Your task to perform on an android device: open app "Facebook" Image 0: 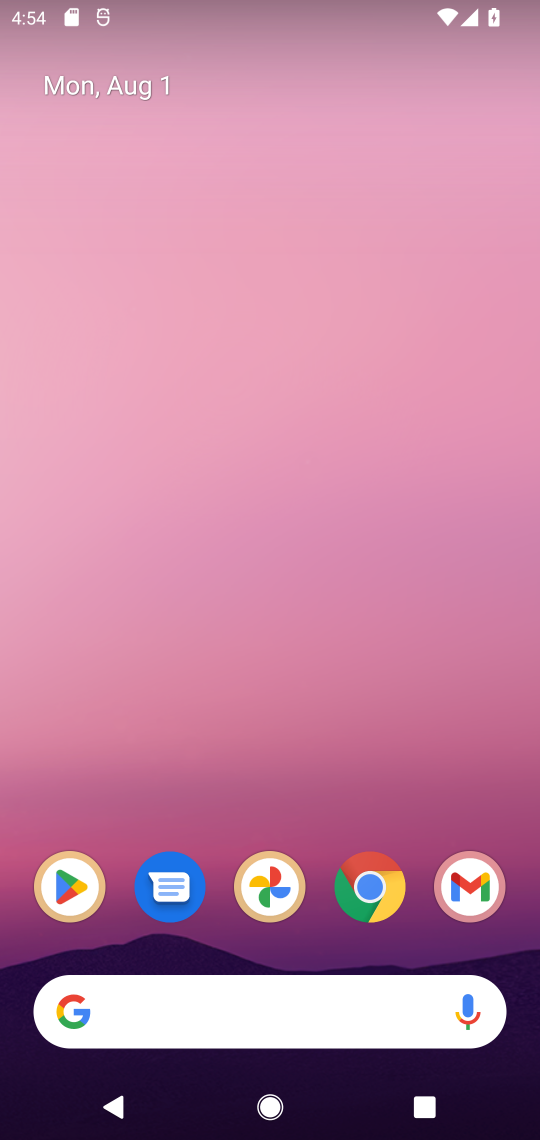
Step 0: click (79, 907)
Your task to perform on an android device: open app "Facebook" Image 1: 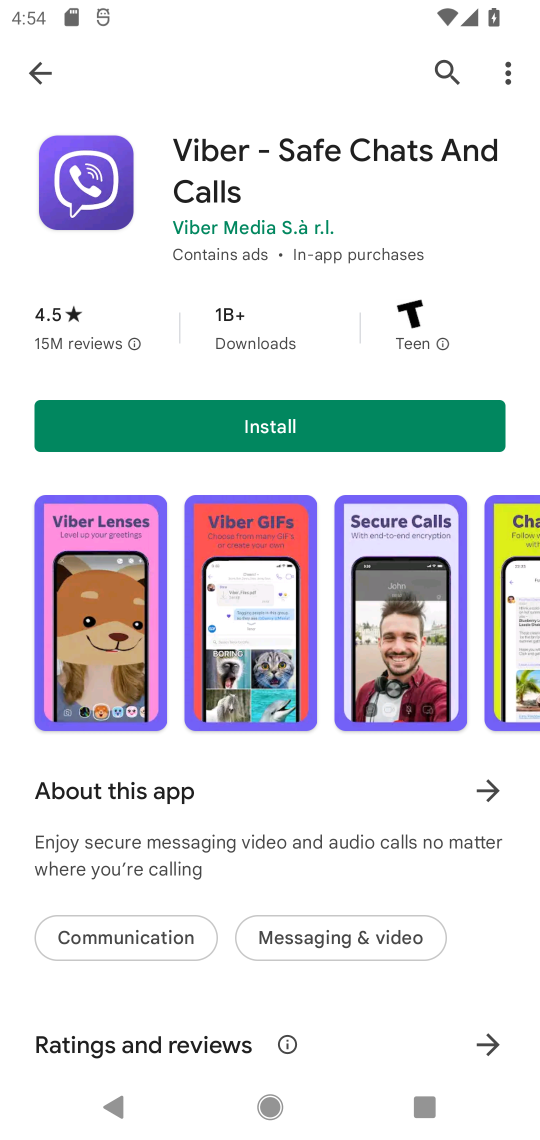
Step 1: click (84, 63)
Your task to perform on an android device: open app "Facebook" Image 2: 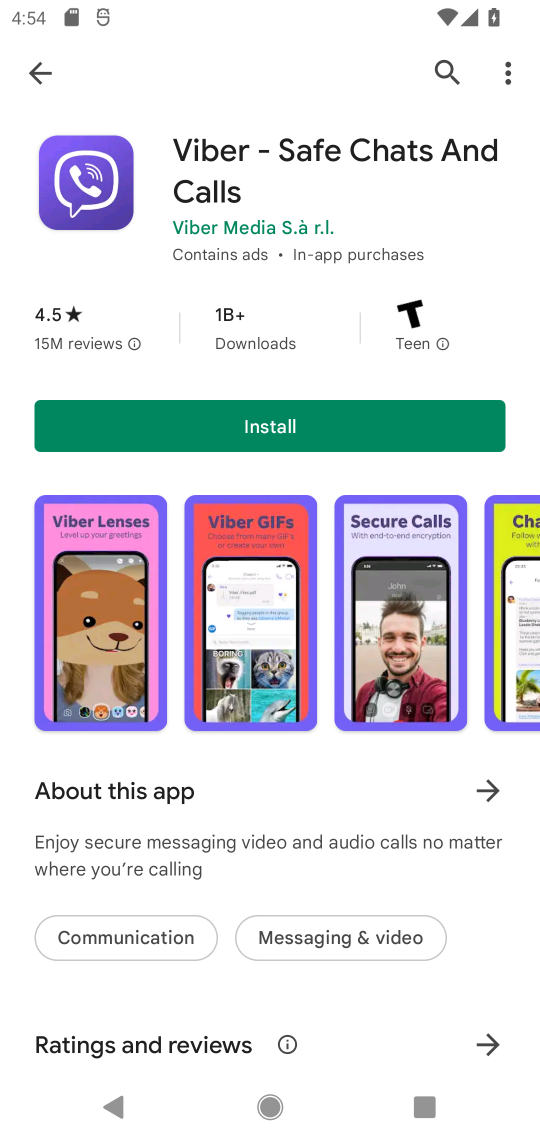
Step 2: click (53, 67)
Your task to perform on an android device: open app "Facebook" Image 3: 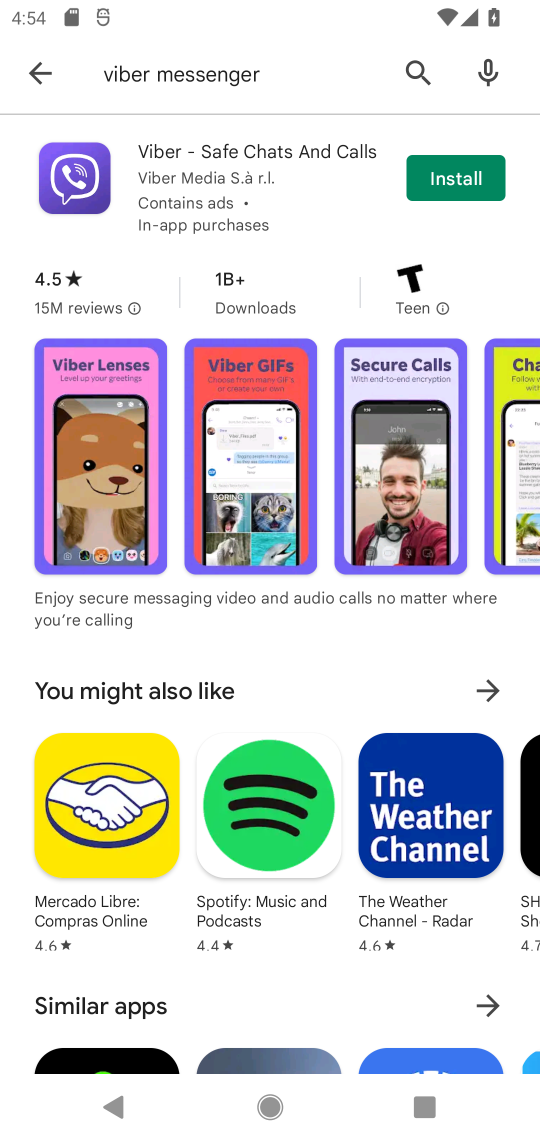
Step 3: click (53, 67)
Your task to perform on an android device: open app "Facebook" Image 4: 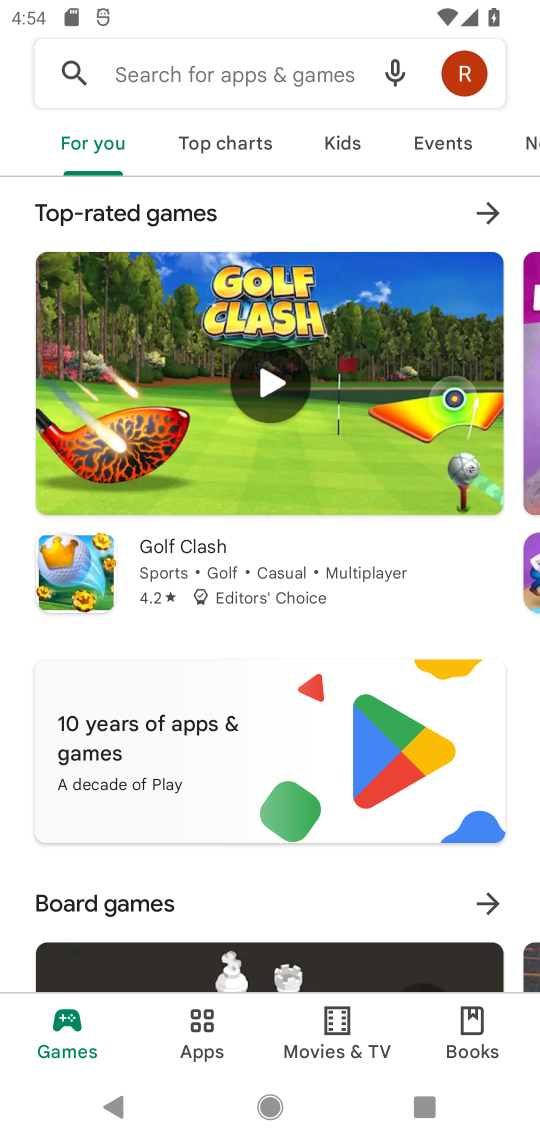
Step 4: click (136, 81)
Your task to perform on an android device: open app "Facebook" Image 5: 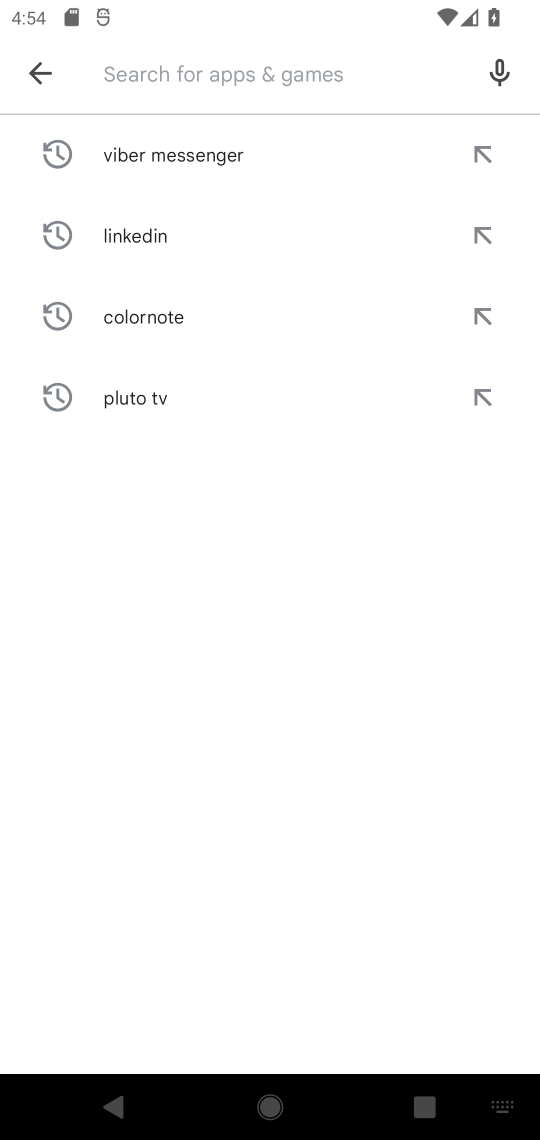
Step 5: type "Facebook"
Your task to perform on an android device: open app "Facebook" Image 6: 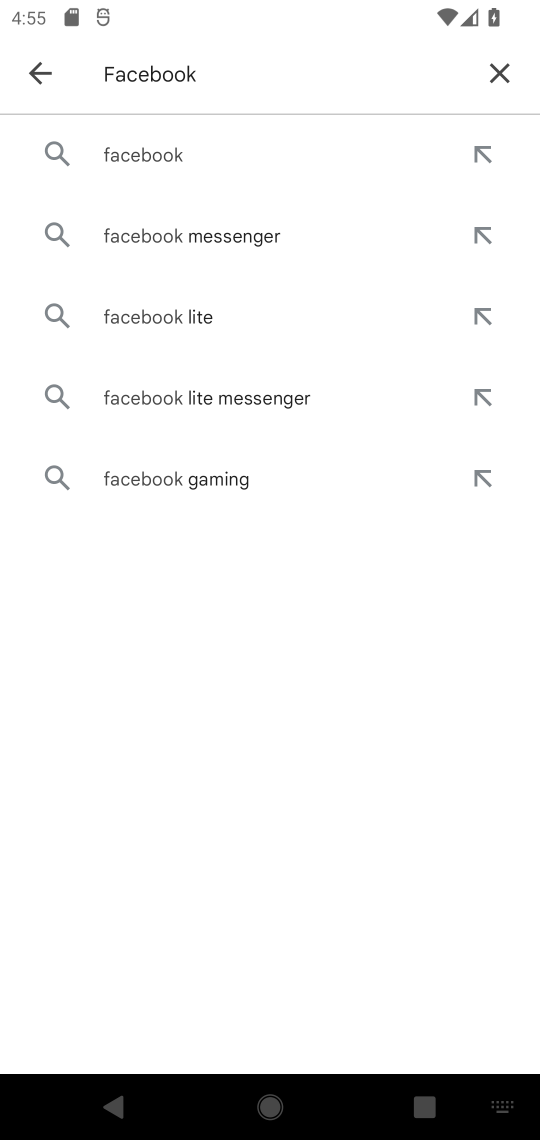
Step 6: click (165, 141)
Your task to perform on an android device: open app "Facebook" Image 7: 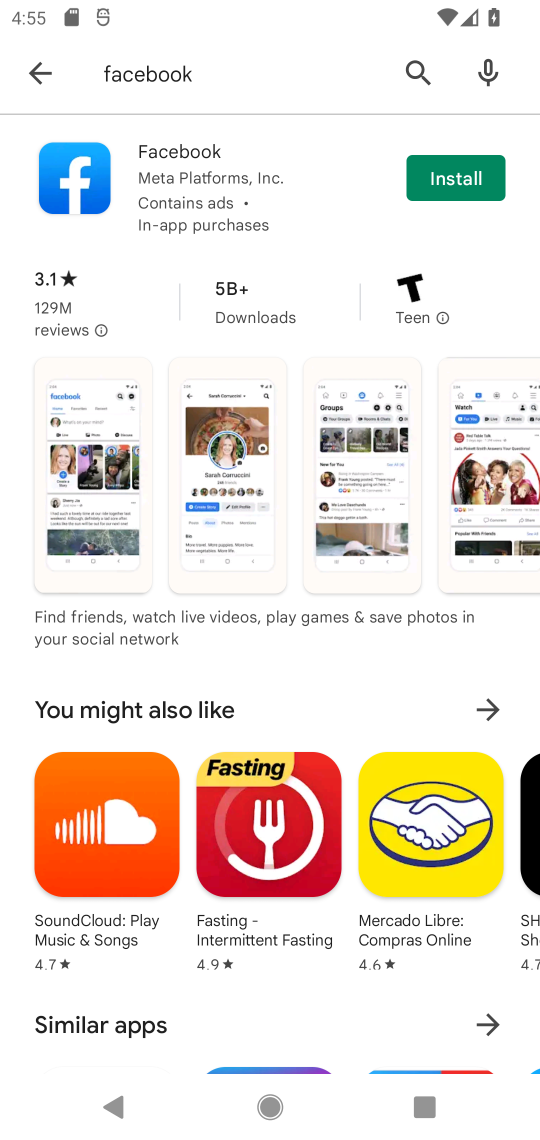
Step 7: click (451, 180)
Your task to perform on an android device: open app "Facebook" Image 8: 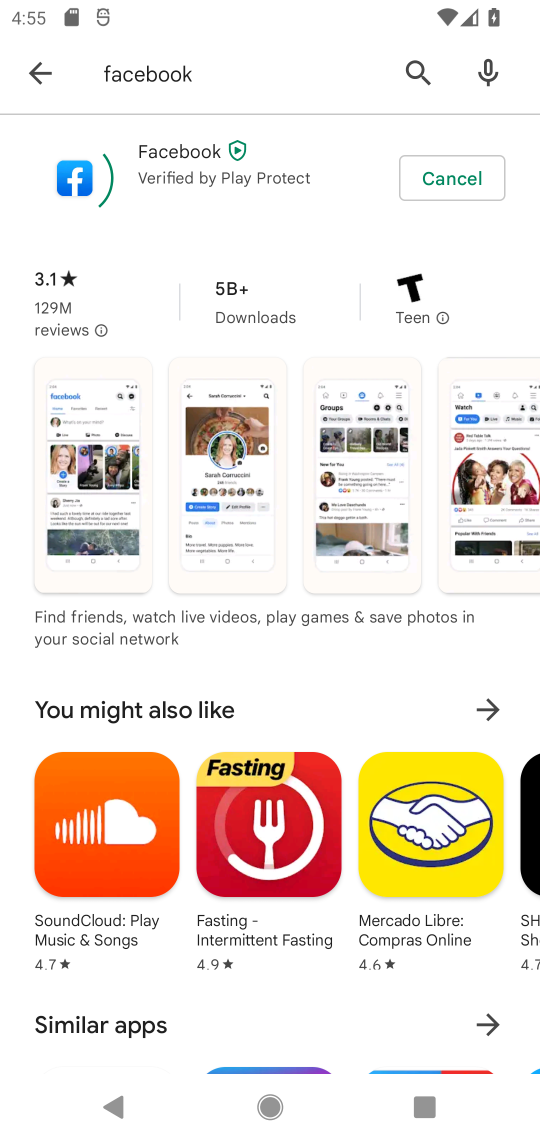
Step 8: click (451, 180)
Your task to perform on an android device: open app "Facebook" Image 9: 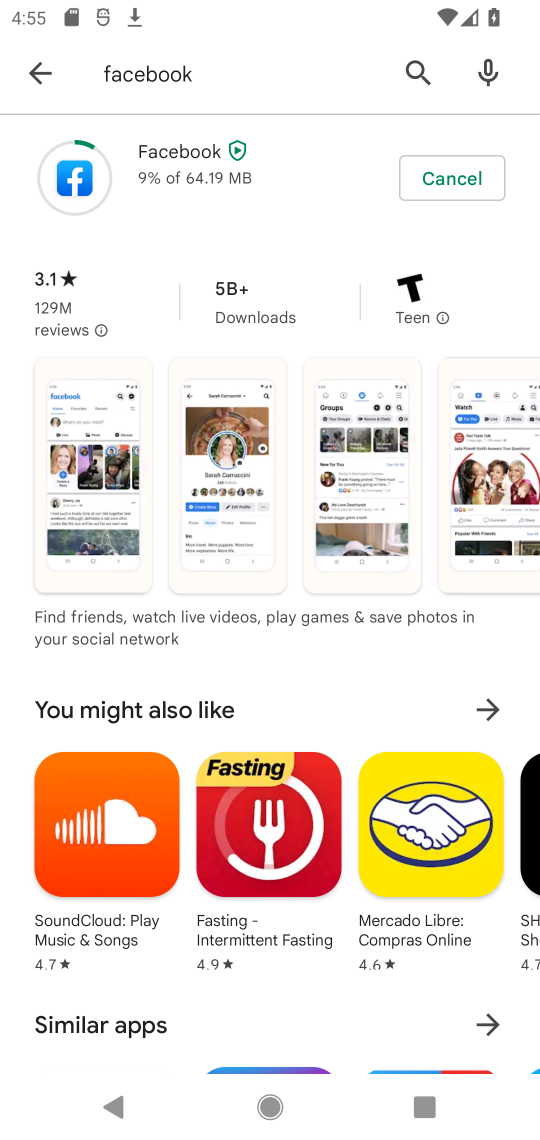
Step 9: click (456, 180)
Your task to perform on an android device: open app "Facebook" Image 10: 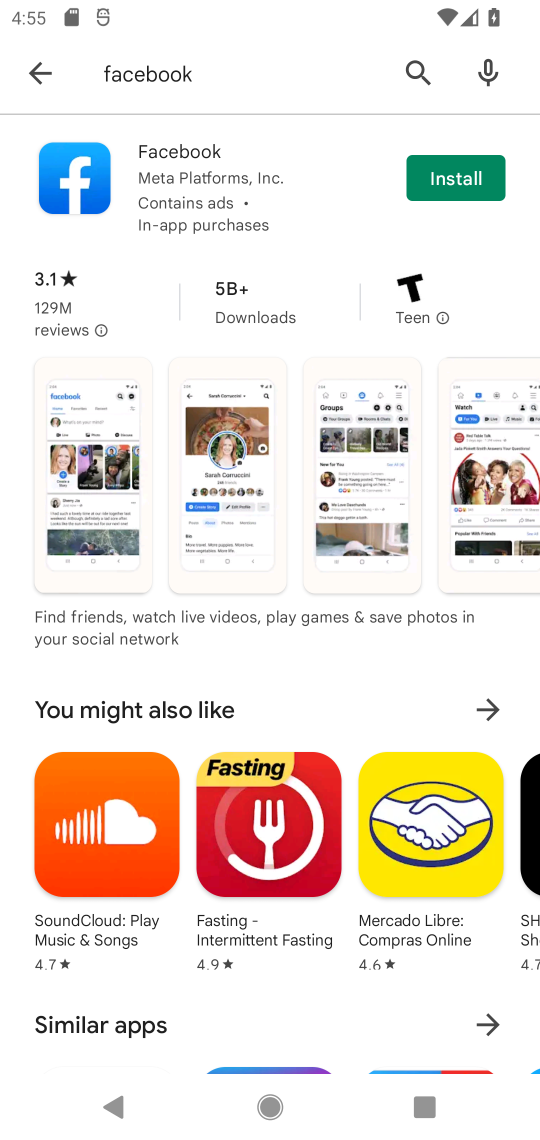
Step 10: task complete